Your task to perform on an android device: Open the stopwatch Image 0: 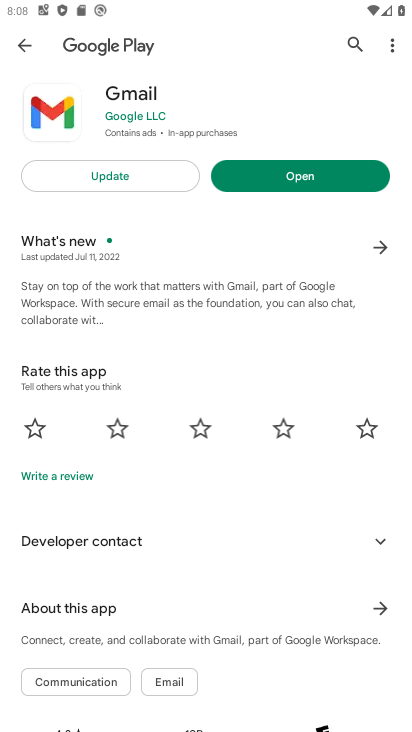
Step 0: press home button
Your task to perform on an android device: Open the stopwatch Image 1: 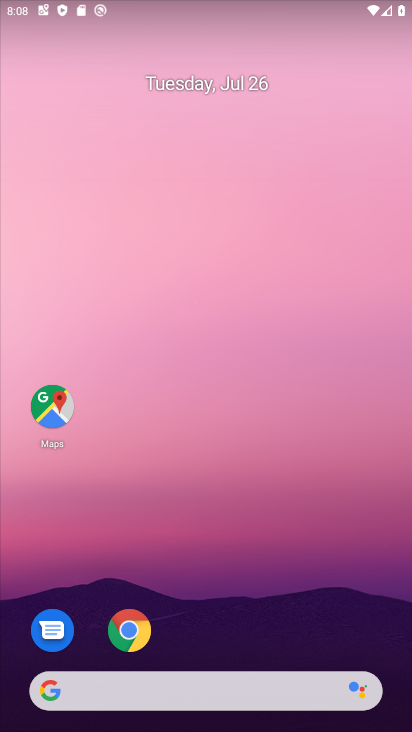
Step 1: drag from (271, 631) to (105, 4)
Your task to perform on an android device: Open the stopwatch Image 2: 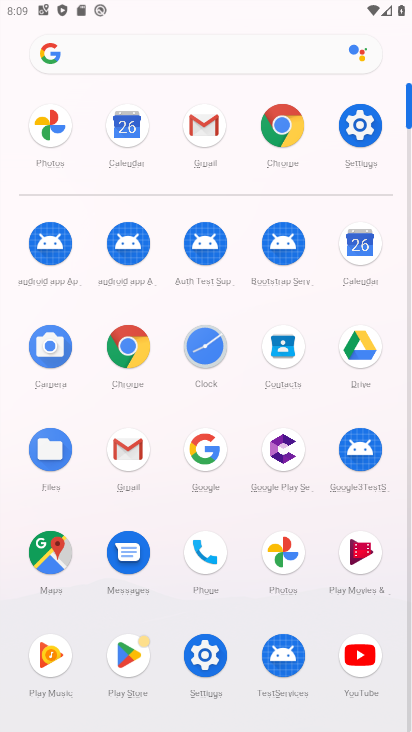
Step 2: click (213, 341)
Your task to perform on an android device: Open the stopwatch Image 3: 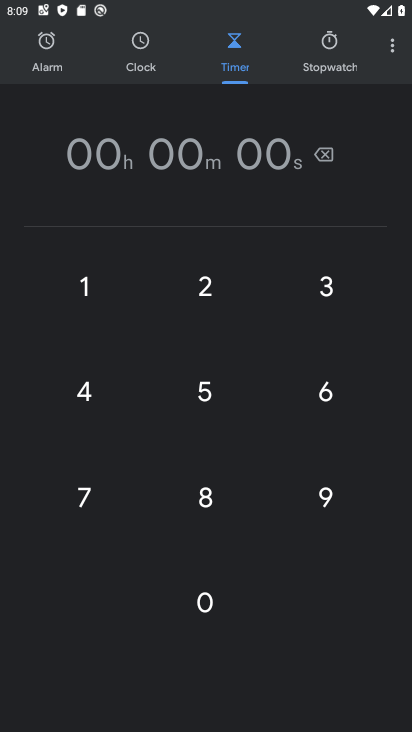
Step 3: click (311, 64)
Your task to perform on an android device: Open the stopwatch Image 4: 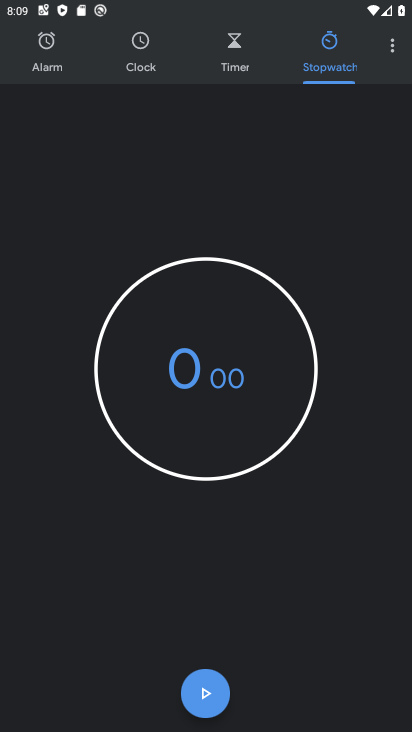
Step 4: task complete